Your task to perform on an android device: uninstall "DoorDash - Dasher" Image 0: 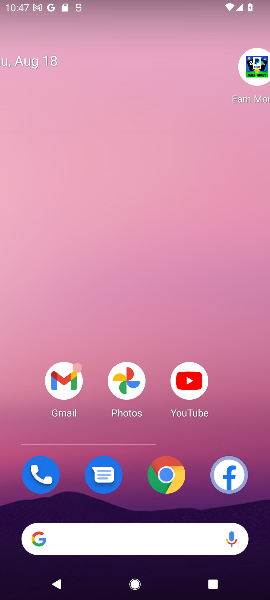
Step 0: press home button
Your task to perform on an android device: uninstall "DoorDash - Dasher" Image 1: 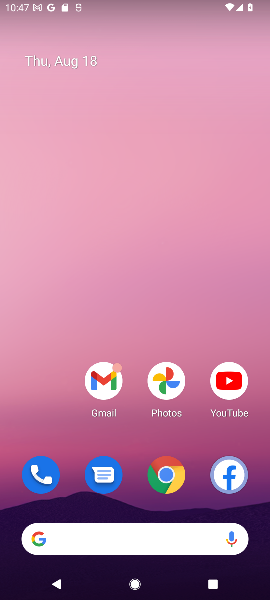
Step 1: drag from (143, 454) to (168, 36)
Your task to perform on an android device: uninstall "DoorDash - Dasher" Image 2: 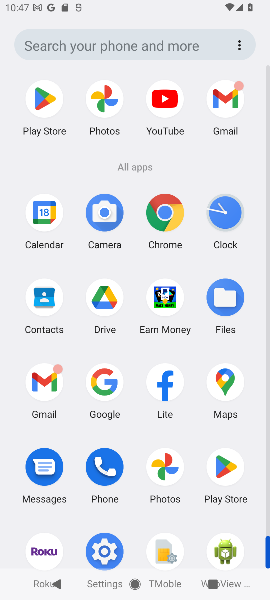
Step 2: click (41, 93)
Your task to perform on an android device: uninstall "DoorDash - Dasher" Image 3: 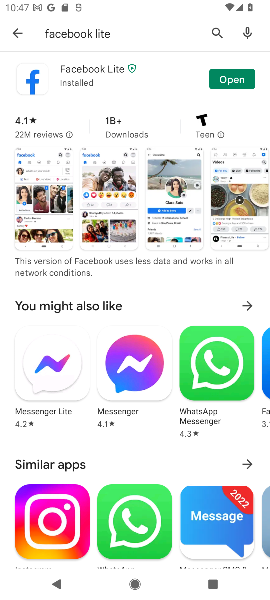
Step 3: click (215, 34)
Your task to perform on an android device: uninstall "DoorDash - Dasher" Image 4: 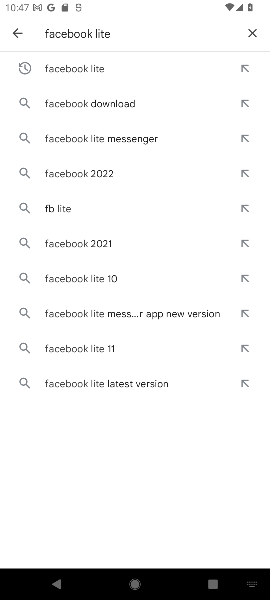
Step 4: click (246, 35)
Your task to perform on an android device: uninstall "DoorDash - Dasher" Image 5: 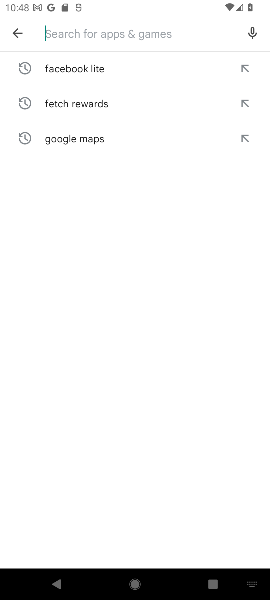
Step 5: type "DoorDash - Dasher"
Your task to perform on an android device: uninstall "DoorDash - Dasher" Image 6: 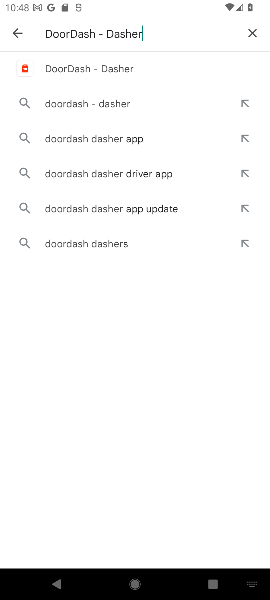
Step 6: click (127, 71)
Your task to perform on an android device: uninstall "DoorDash - Dasher" Image 7: 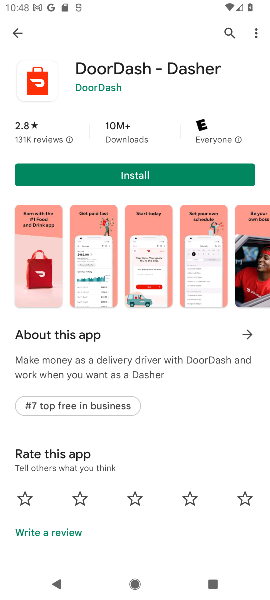
Step 7: task complete